Your task to perform on an android device: delete browsing data in the chrome app Image 0: 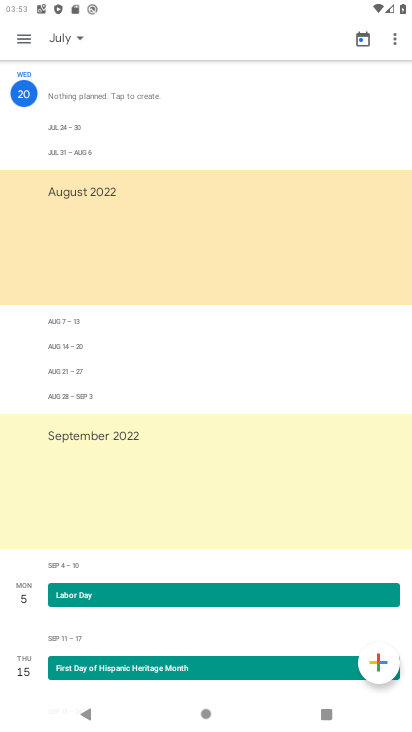
Step 0: press home button
Your task to perform on an android device: delete browsing data in the chrome app Image 1: 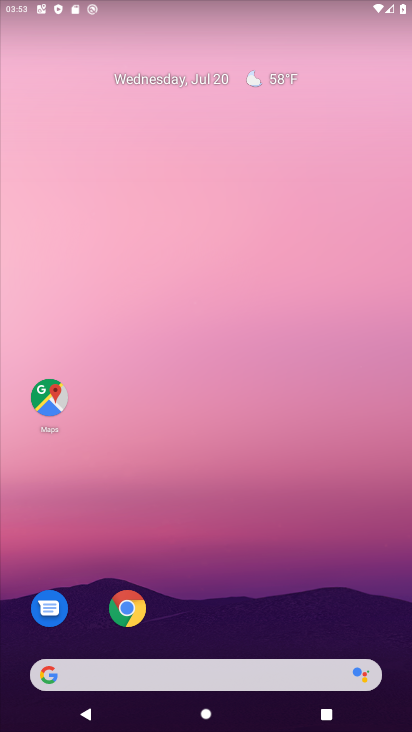
Step 1: click (131, 612)
Your task to perform on an android device: delete browsing data in the chrome app Image 2: 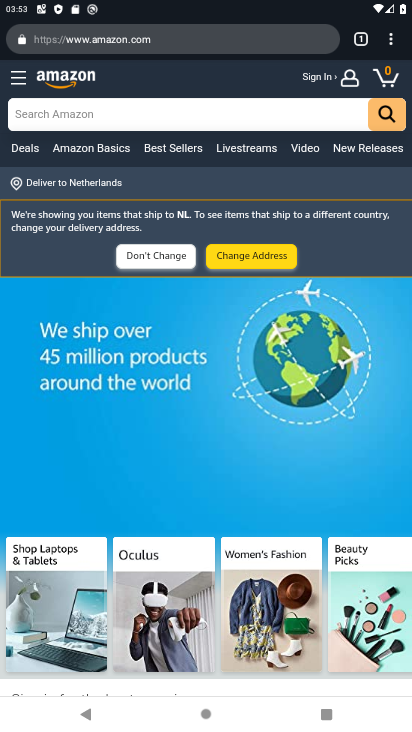
Step 2: click (387, 36)
Your task to perform on an android device: delete browsing data in the chrome app Image 3: 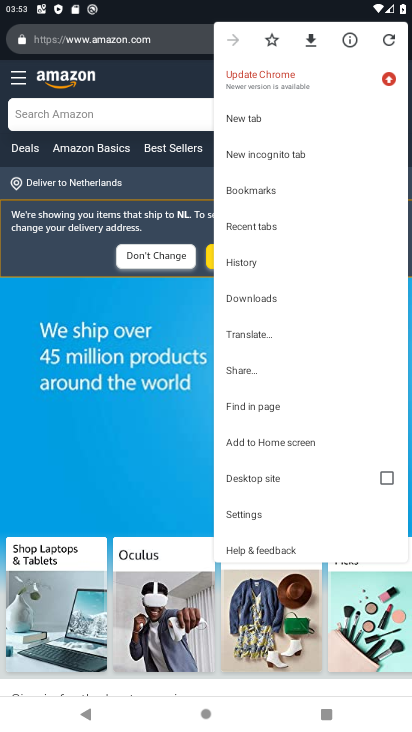
Step 3: click (264, 510)
Your task to perform on an android device: delete browsing data in the chrome app Image 4: 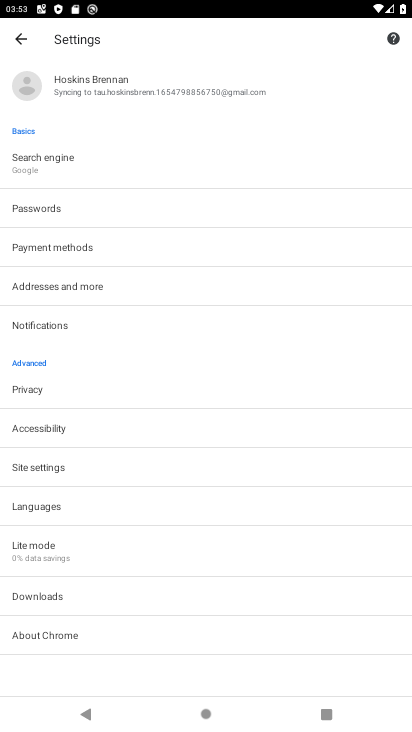
Step 4: task complete